Your task to perform on an android device: Open Amazon Image 0: 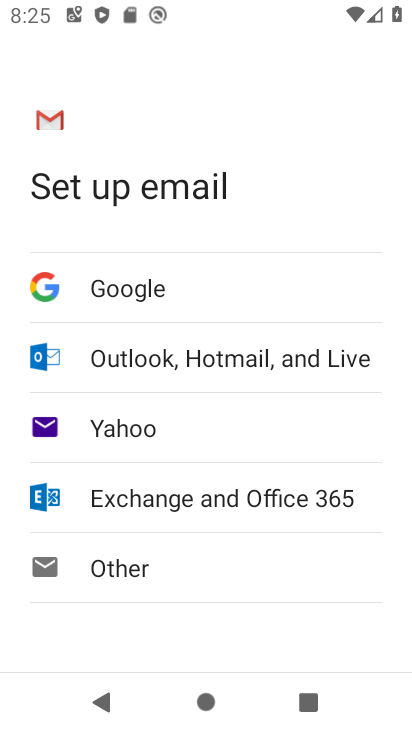
Step 0: press home button
Your task to perform on an android device: Open Amazon Image 1: 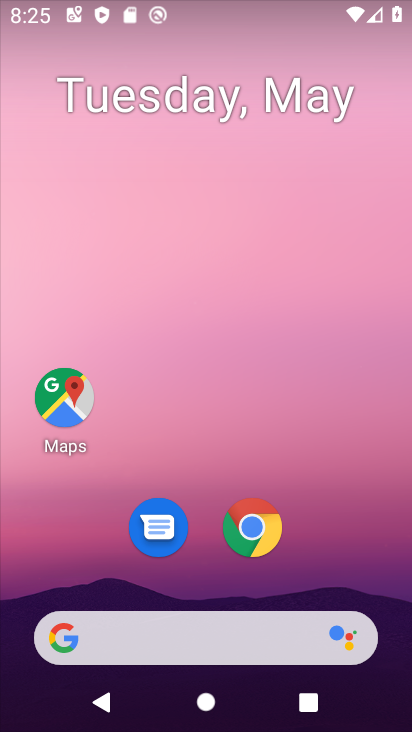
Step 1: click (262, 530)
Your task to perform on an android device: Open Amazon Image 2: 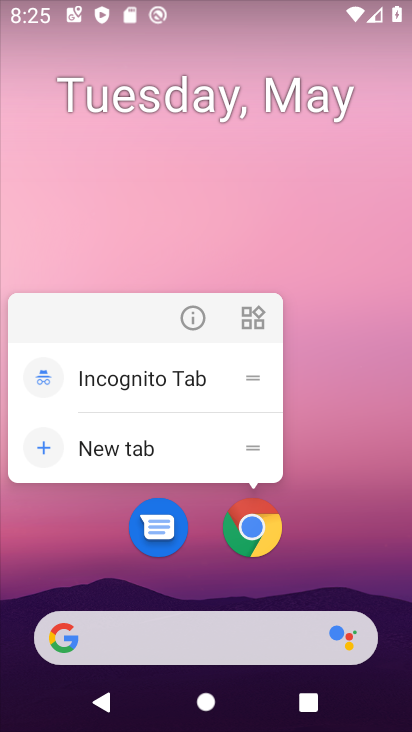
Step 2: click (261, 529)
Your task to perform on an android device: Open Amazon Image 3: 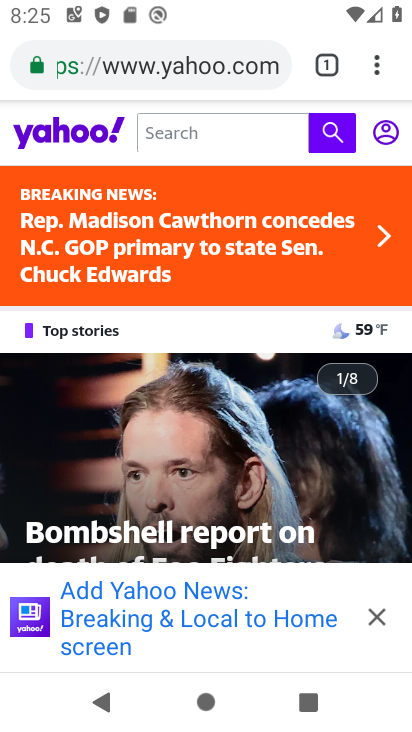
Step 3: drag from (384, 68) to (308, 121)
Your task to perform on an android device: Open Amazon Image 4: 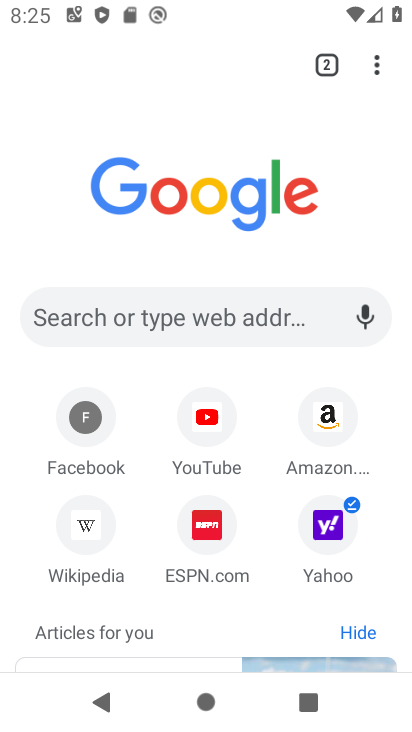
Step 4: click (322, 429)
Your task to perform on an android device: Open Amazon Image 5: 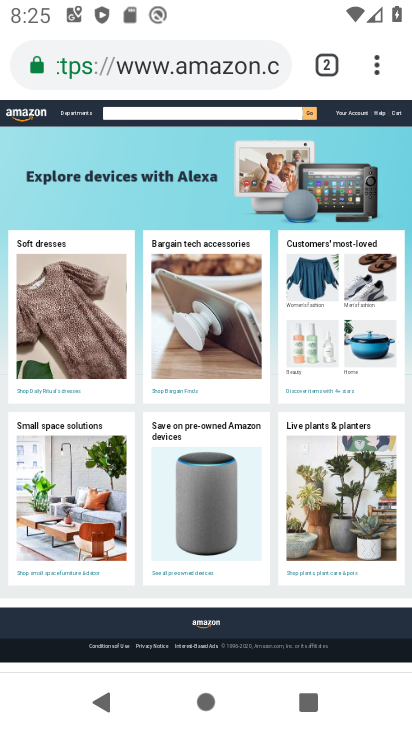
Step 5: task complete